Your task to perform on an android device: open app "Fetch Rewards" (install if not already installed) and go to login screen Image 0: 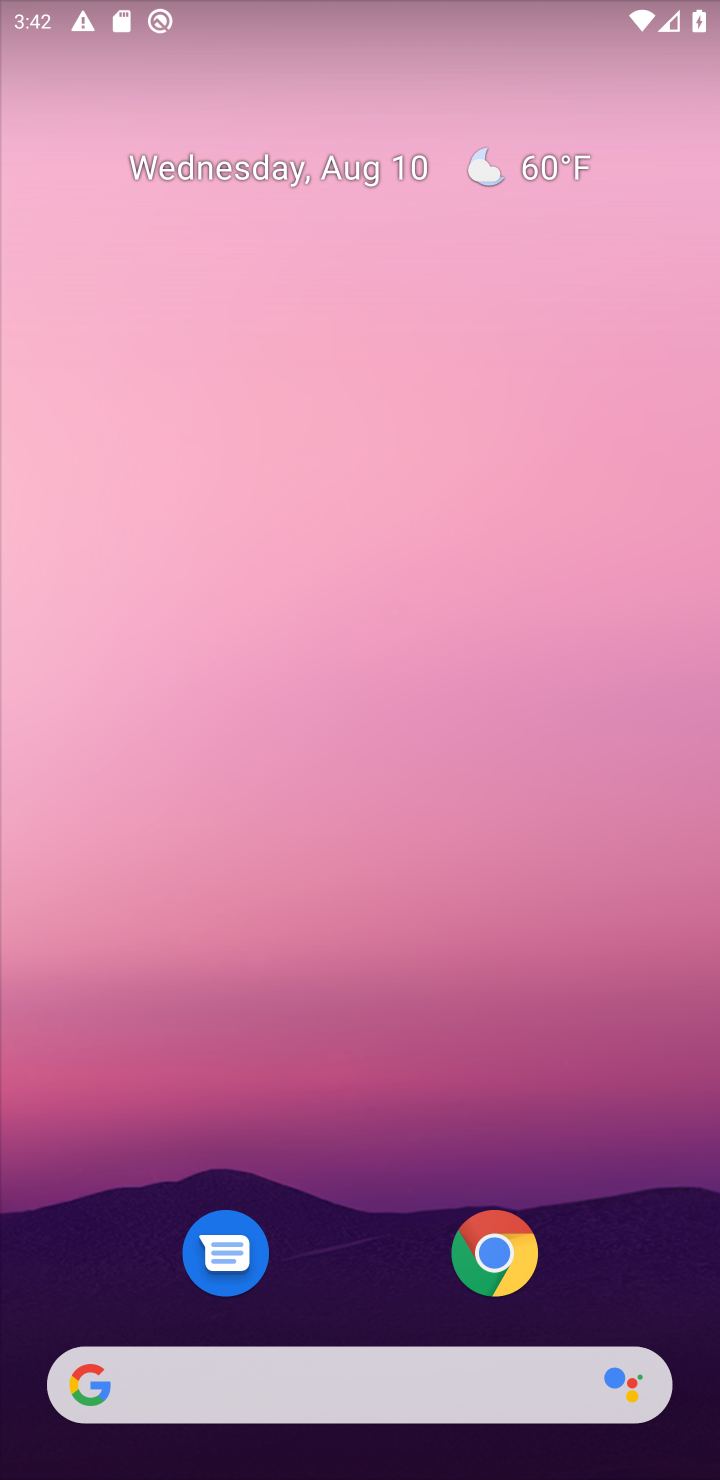
Step 0: drag from (469, 1320) to (464, 369)
Your task to perform on an android device: open app "Fetch Rewards" (install if not already installed) and go to login screen Image 1: 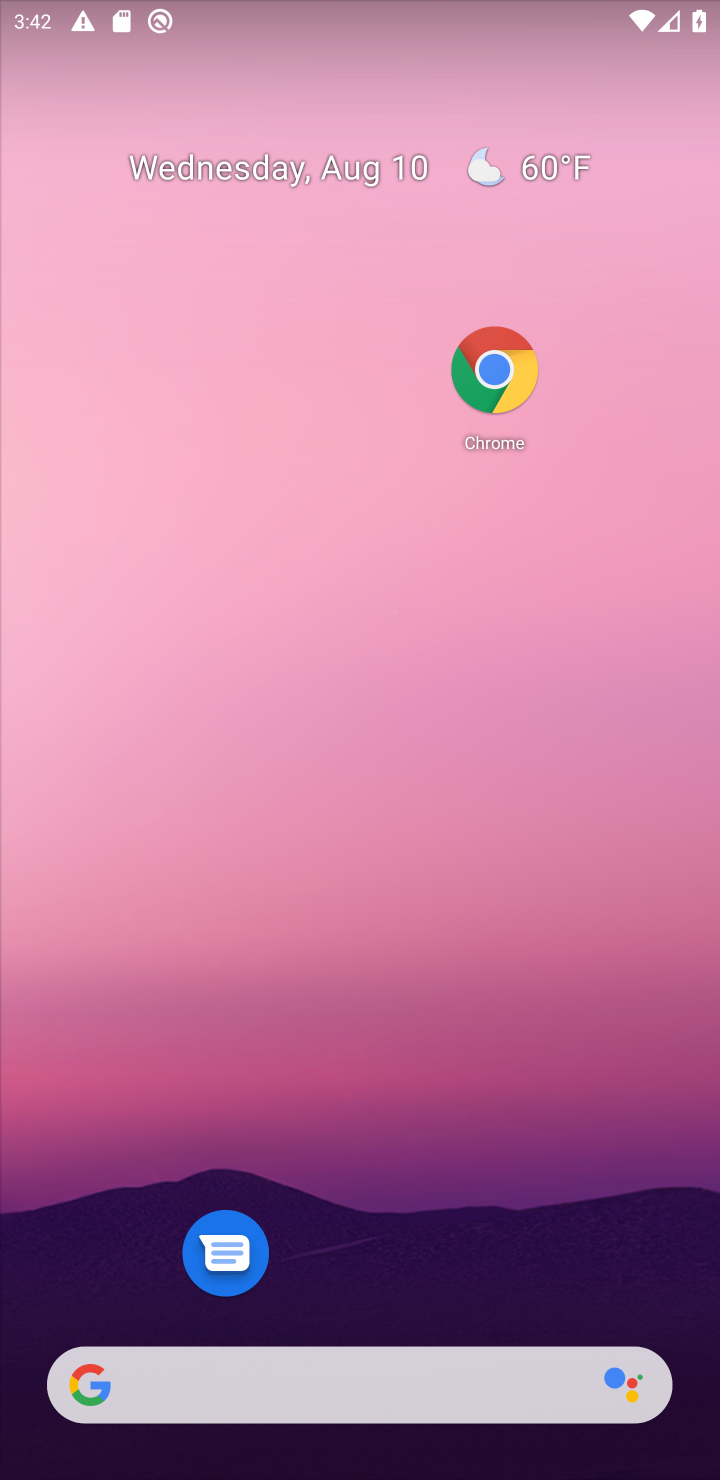
Step 1: drag from (313, 1181) to (345, 395)
Your task to perform on an android device: open app "Fetch Rewards" (install if not already installed) and go to login screen Image 2: 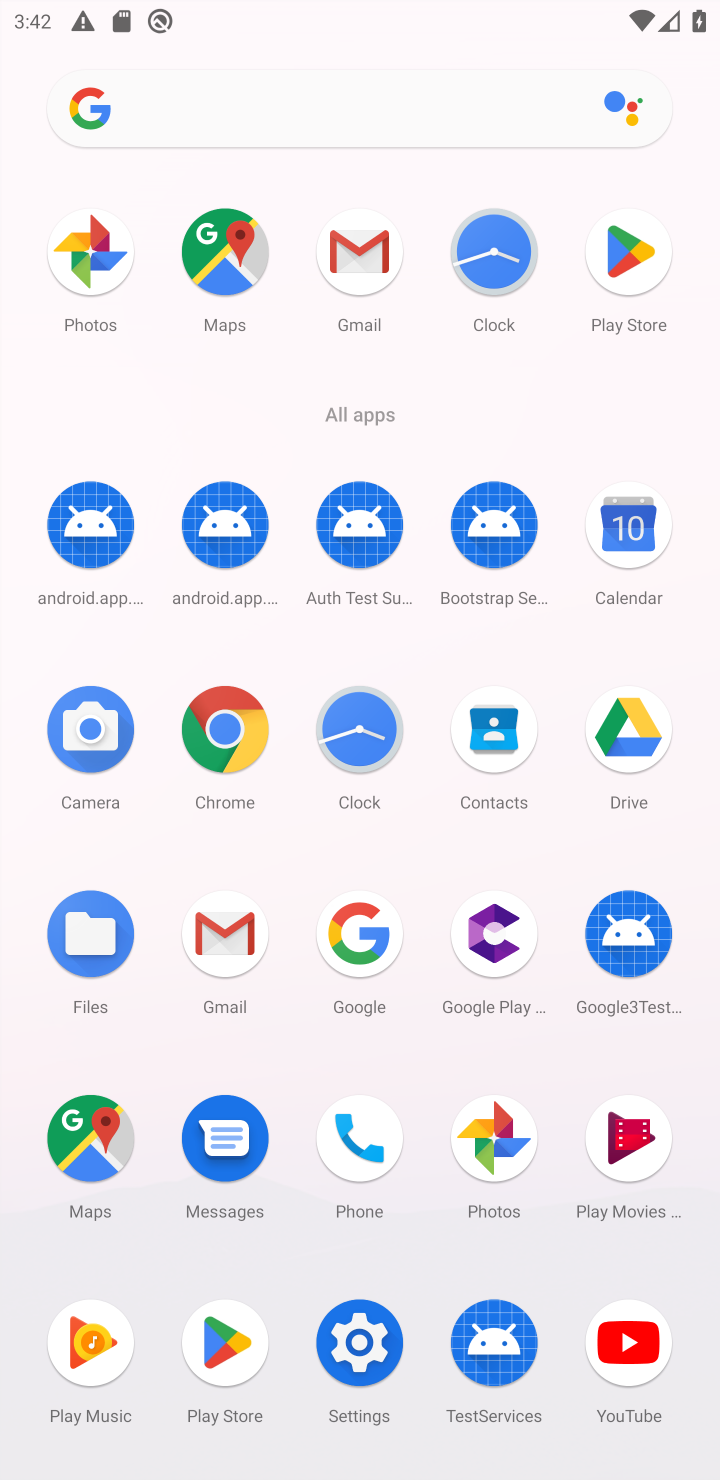
Step 2: click (618, 247)
Your task to perform on an android device: open app "Fetch Rewards" (install if not already installed) and go to login screen Image 3: 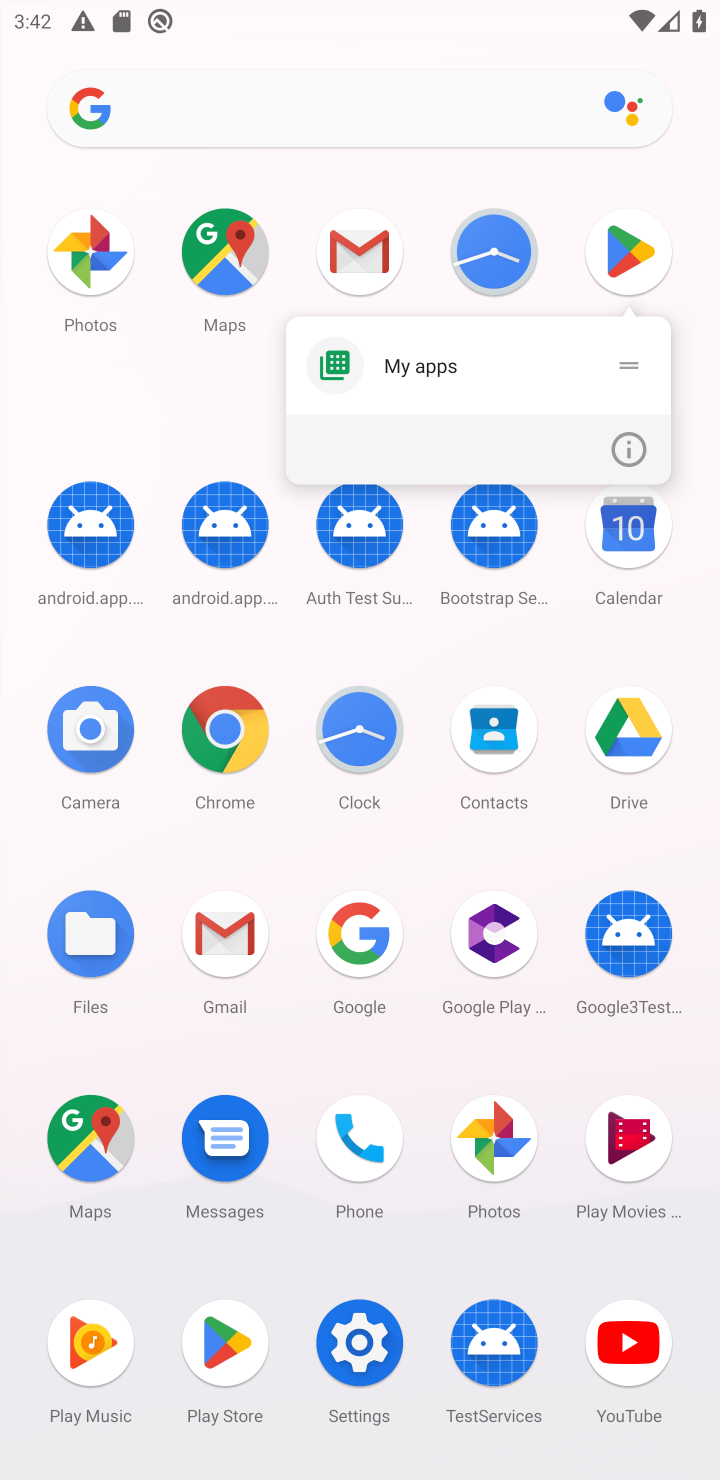
Step 3: click (618, 247)
Your task to perform on an android device: open app "Fetch Rewards" (install if not already installed) and go to login screen Image 4: 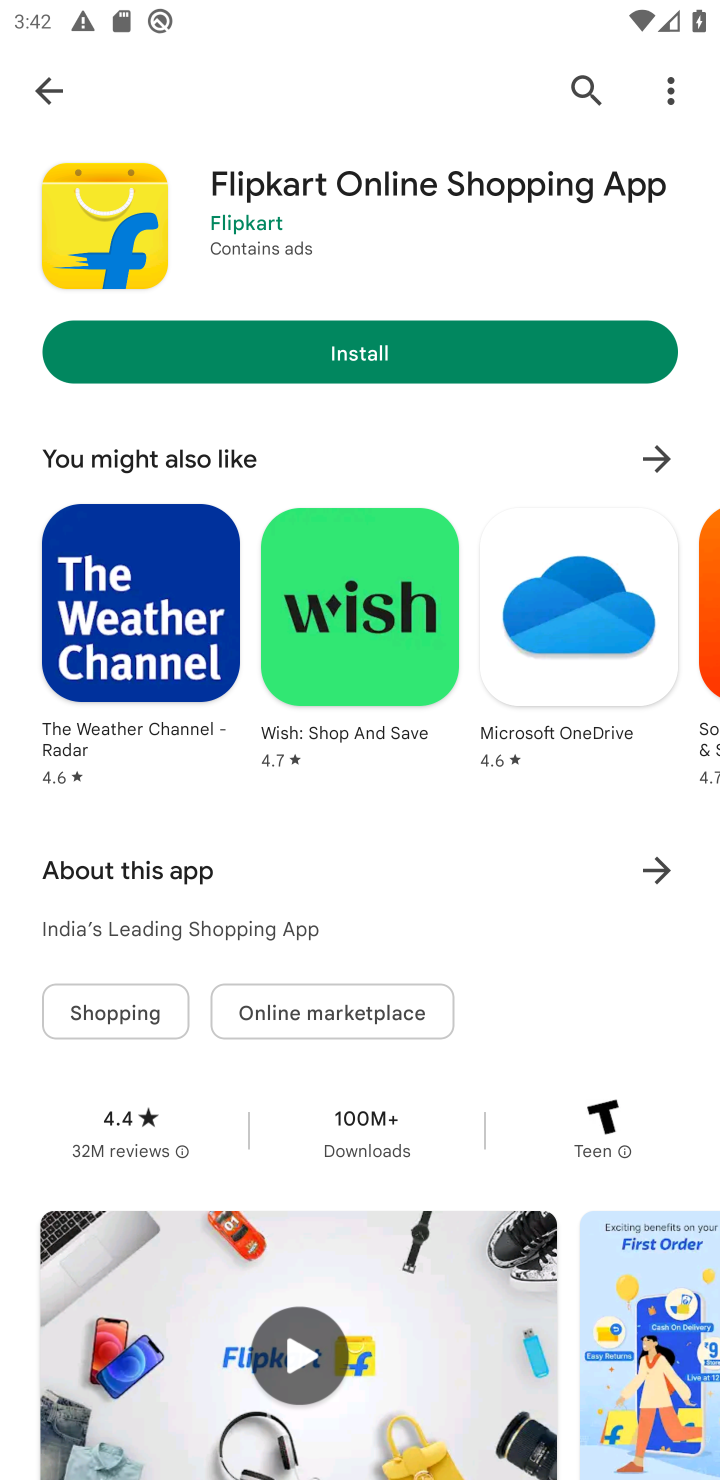
Step 4: click (49, 80)
Your task to perform on an android device: open app "Fetch Rewards" (install if not already installed) and go to login screen Image 5: 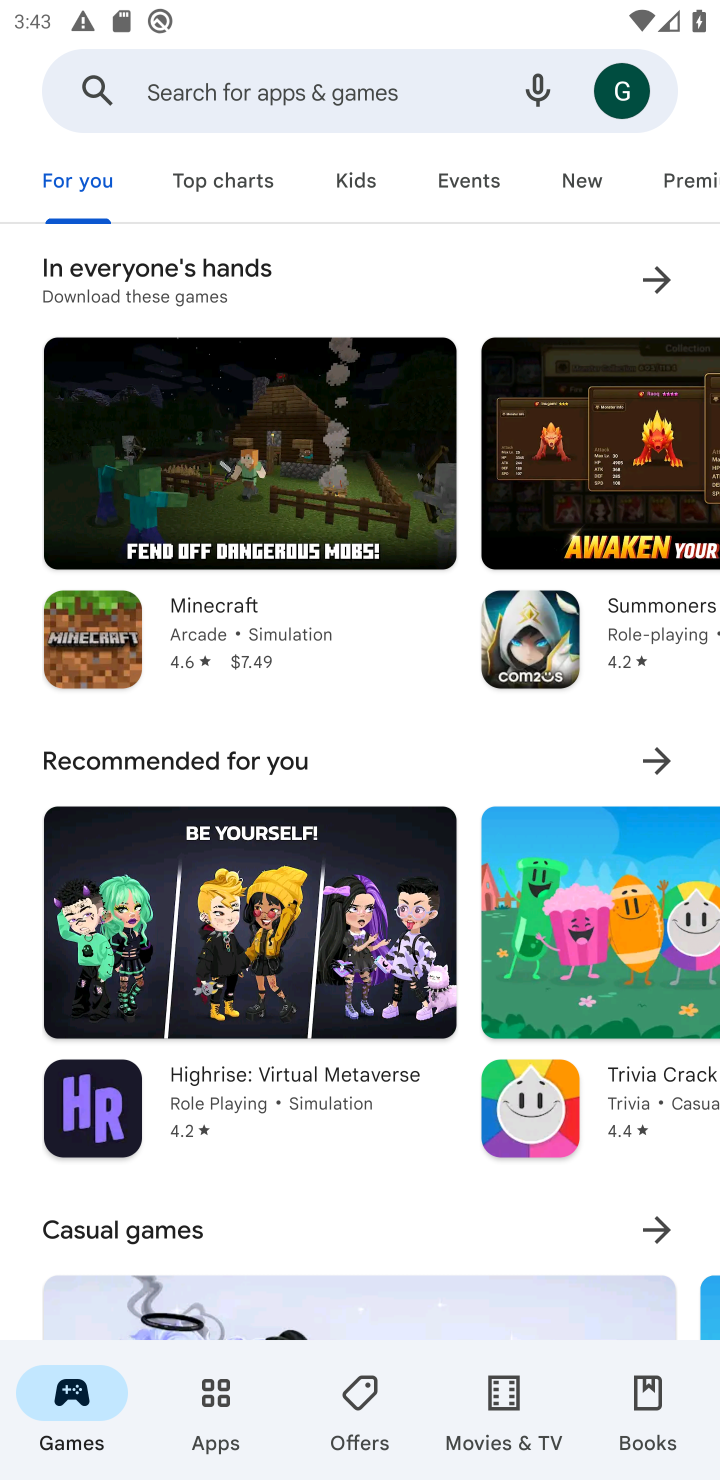
Step 5: click (258, 94)
Your task to perform on an android device: open app "Fetch Rewards" (install if not already installed) and go to login screen Image 6: 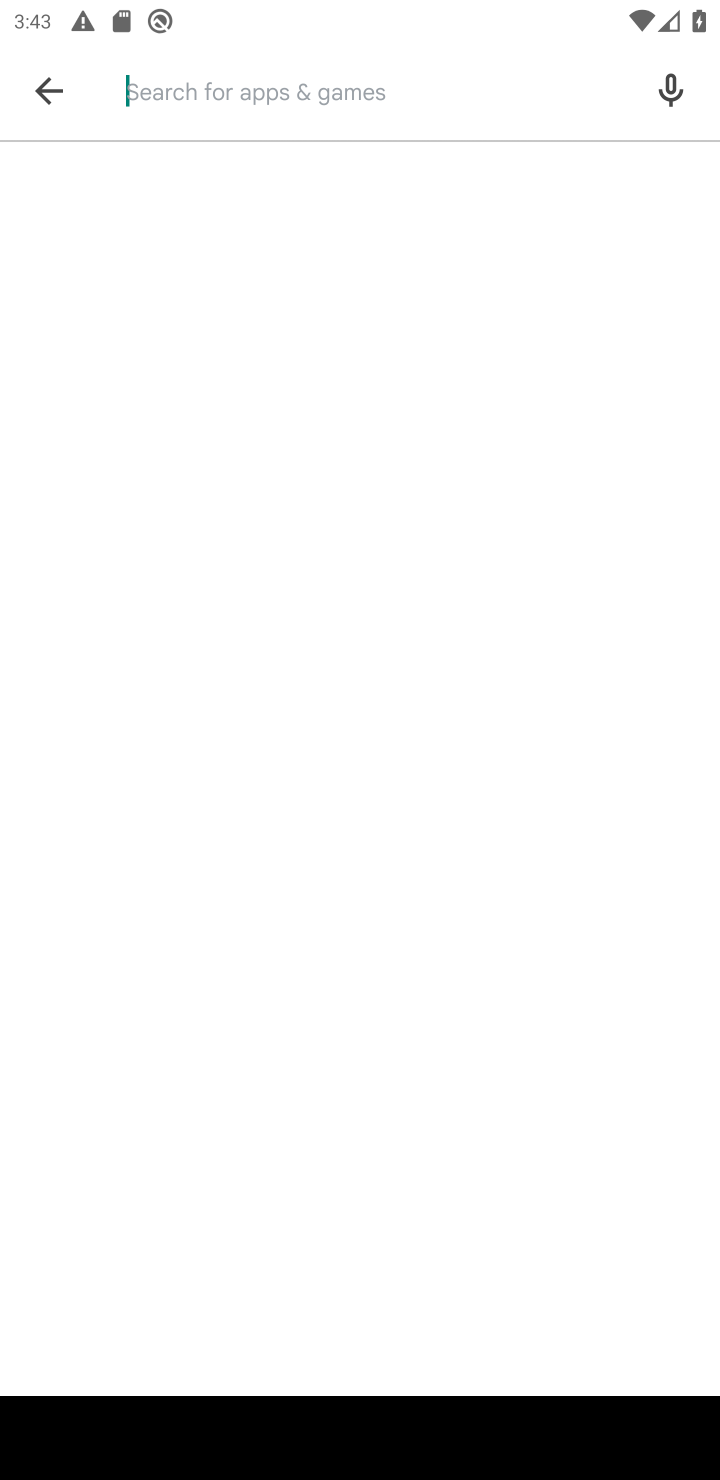
Step 6: type "Fetch Rewards "
Your task to perform on an android device: open app "Fetch Rewards" (install if not already installed) and go to login screen Image 7: 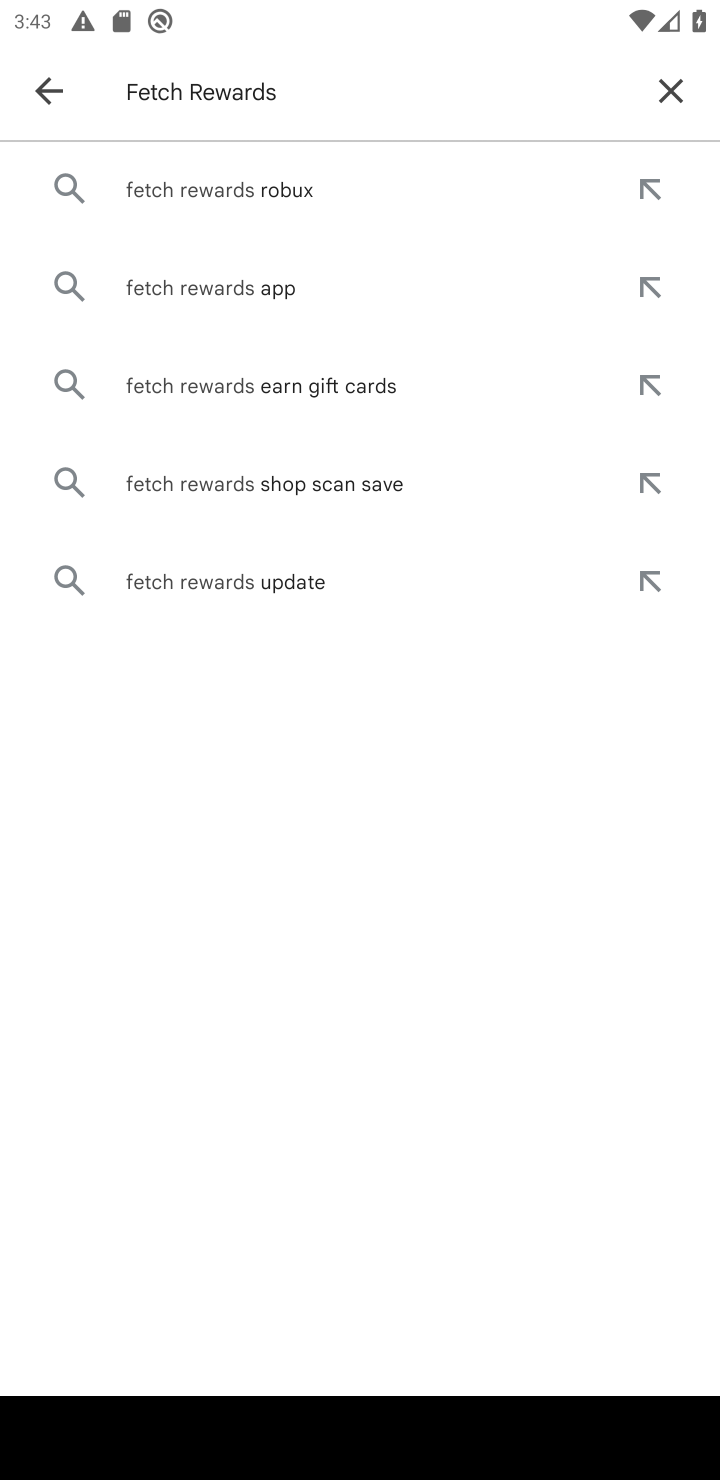
Step 7: click (226, 187)
Your task to perform on an android device: open app "Fetch Rewards" (install if not already installed) and go to login screen Image 8: 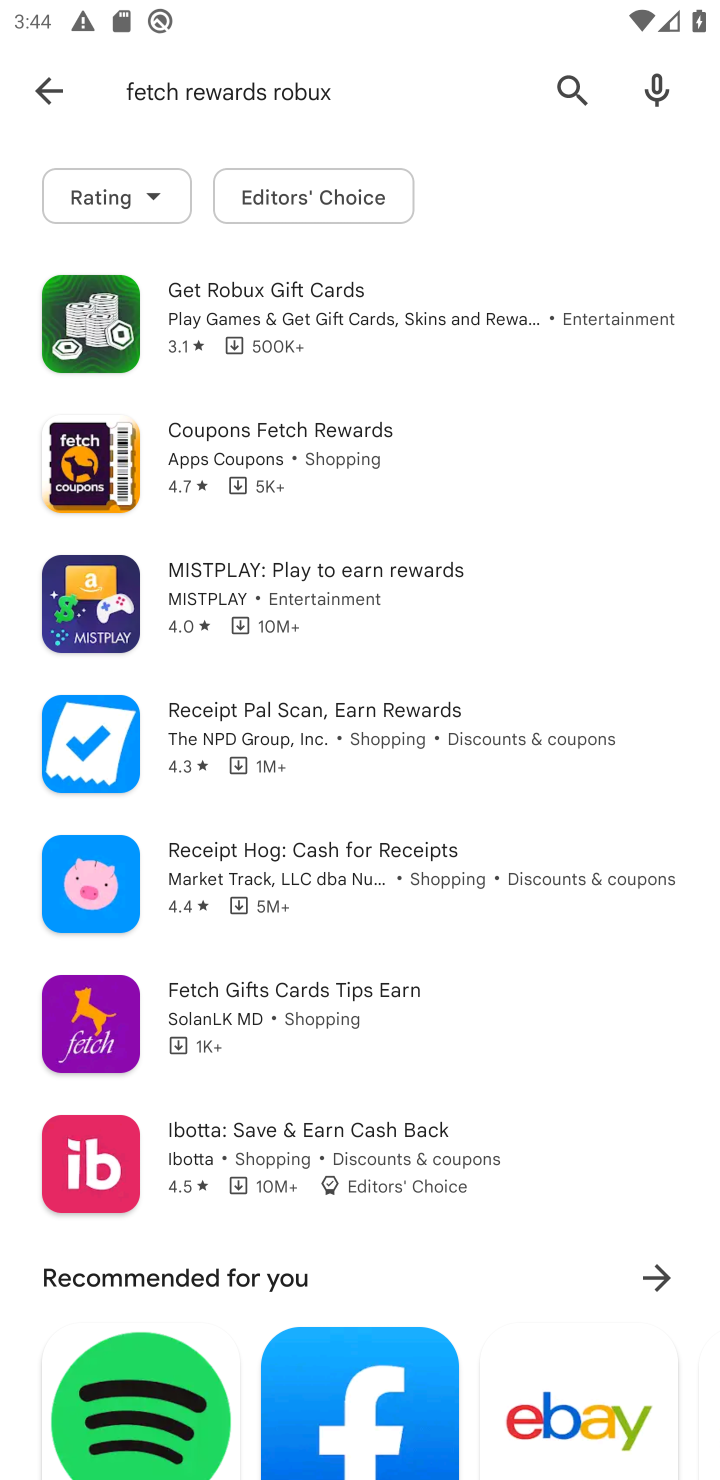
Step 8: task complete